Your task to perform on an android device: Open the stopwatch Image 0: 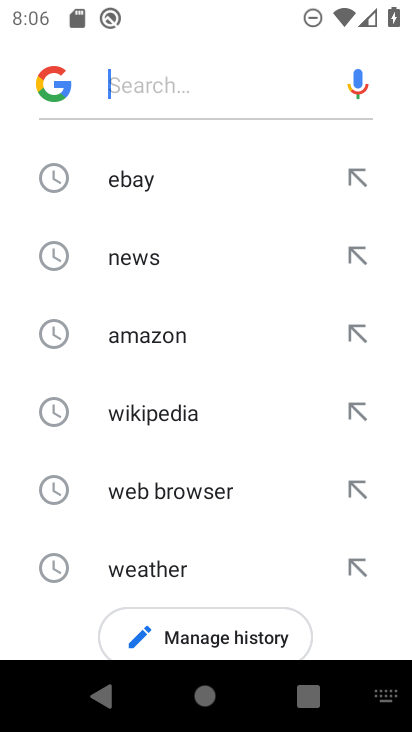
Step 0: press home button
Your task to perform on an android device: Open the stopwatch Image 1: 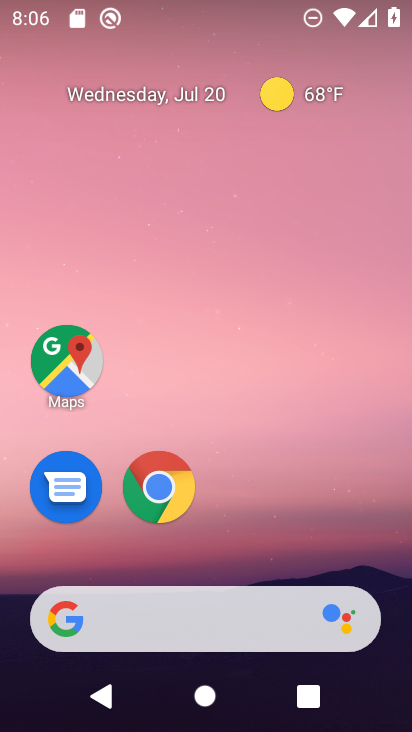
Step 1: drag from (378, 539) to (401, 123)
Your task to perform on an android device: Open the stopwatch Image 2: 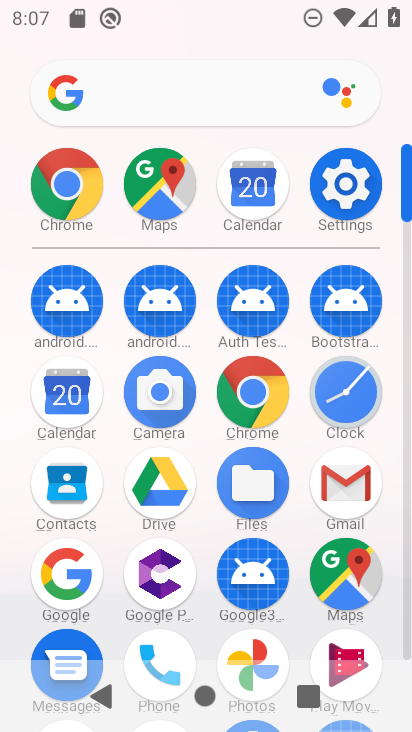
Step 2: click (348, 380)
Your task to perform on an android device: Open the stopwatch Image 3: 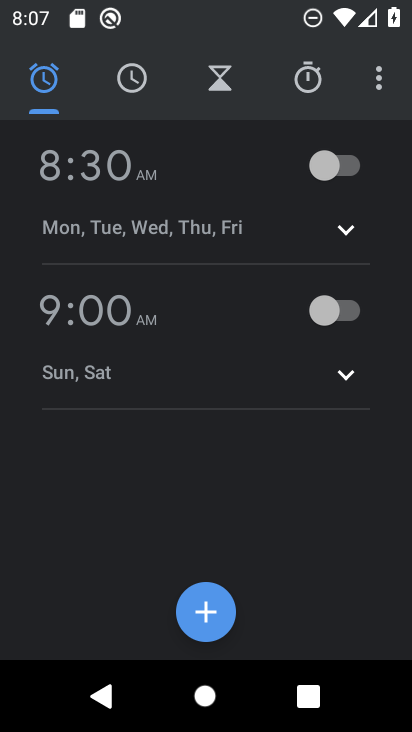
Step 3: click (305, 85)
Your task to perform on an android device: Open the stopwatch Image 4: 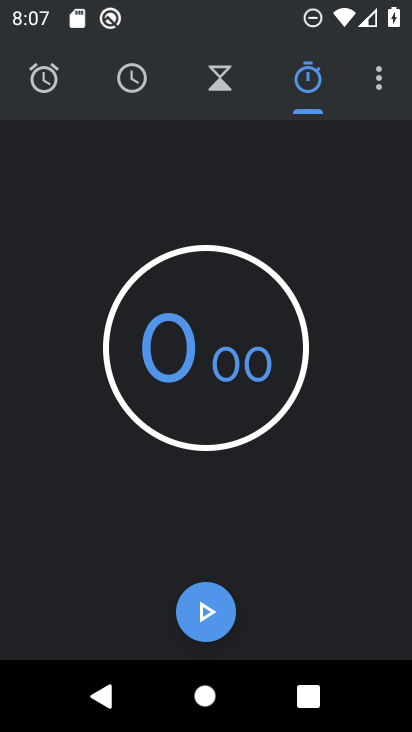
Step 4: task complete